Your task to perform on an android device: manage bookmarks in the chrome app Image 0: 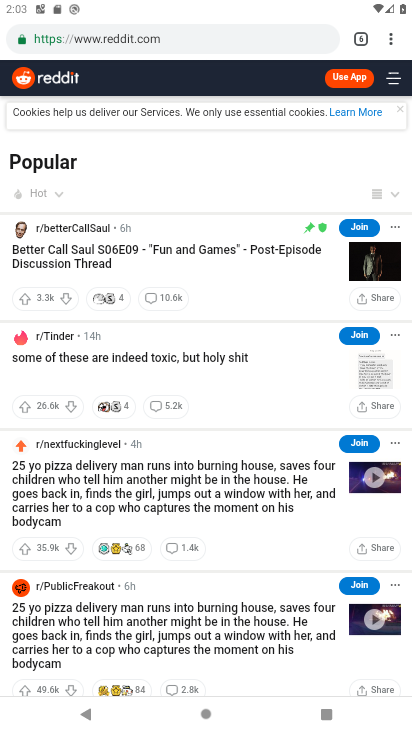
Step 0: press home button
Your task to perform on an android device: manage bookmarks in the chrome app Image 1: 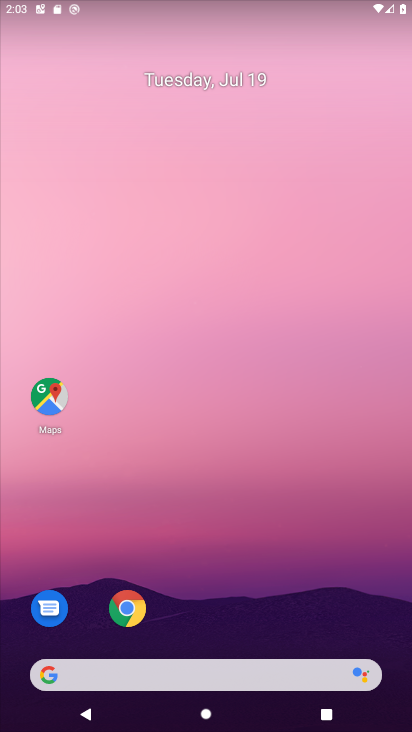
Step 1: click (222, 150)
Your task to perform on an android device: manage bookmarks in the chrome app Image 2: 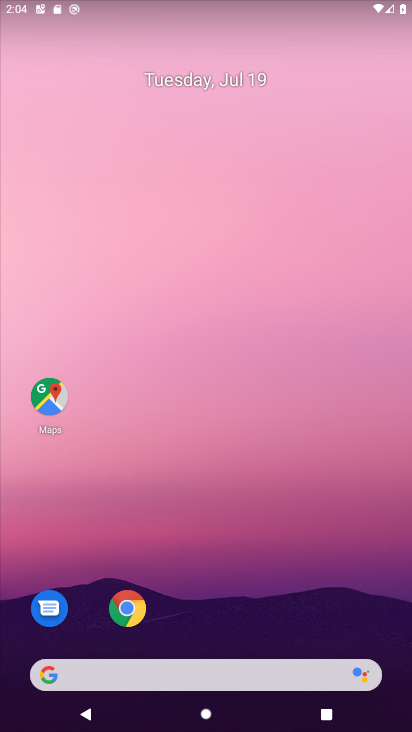
Step 2: drag from (198, 564) to (208, 17)
Your task to perform on an android device: manage bookmarks in the chrome app Image 3: 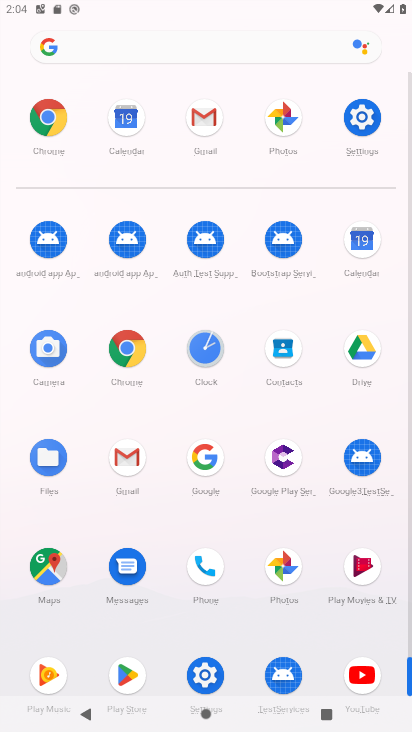
Step 3: click (125, 355)
Your task to perform on an android device: manage bookmarks in the chrome app Image 4: 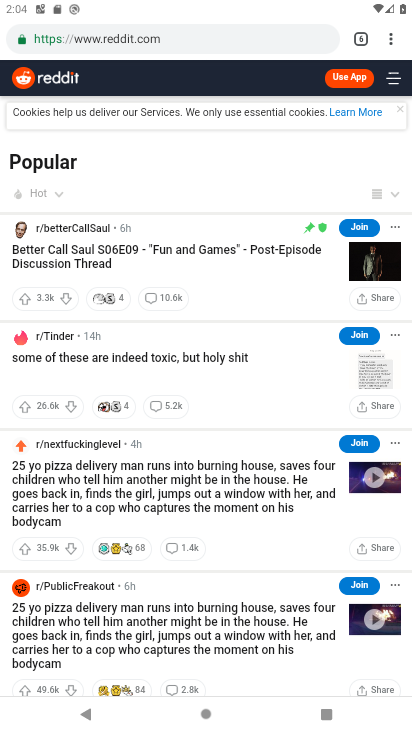
Step 4: click (394, 39)
Your task to perform on an android device: manage bookmarks in the chrome app Image 5: 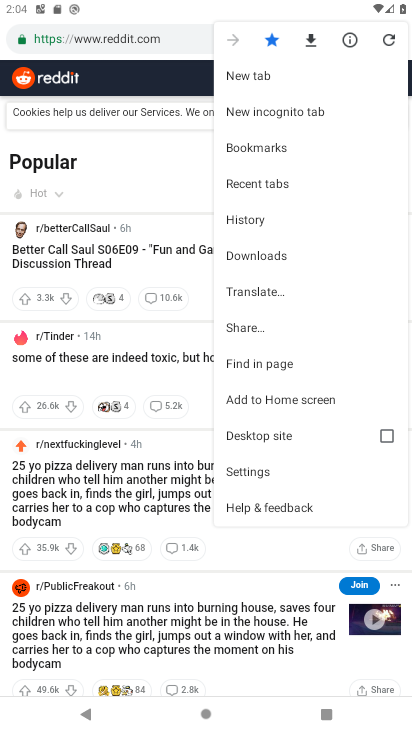
Step 5: click (325, 147)
Your task to perform on an android device: manage bookmarks in the chrome app Image 6: 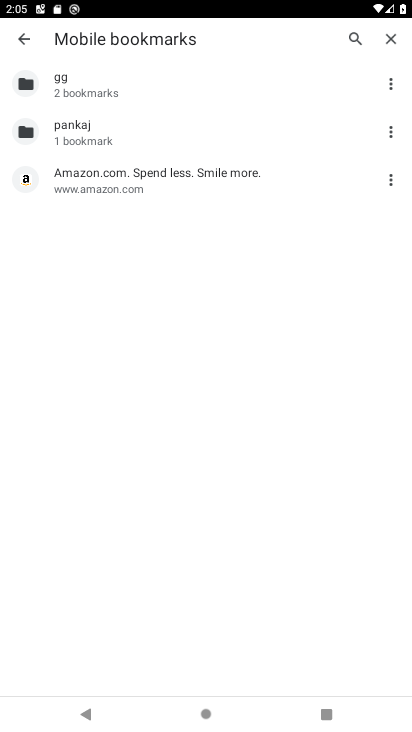
Step 6: click (394, 179)
Your task to perform on an android device: manage bookmarks in the chrome app Image 7: 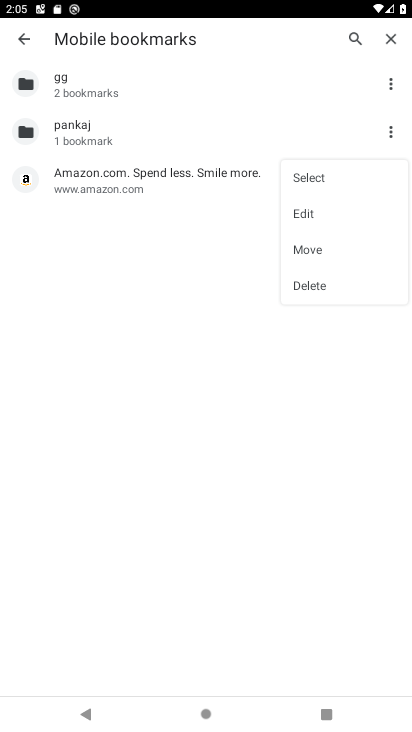
Step 7: click (330, 280)
Your task to perform on an android device: manage bookmarks in the chrome app Image 8: 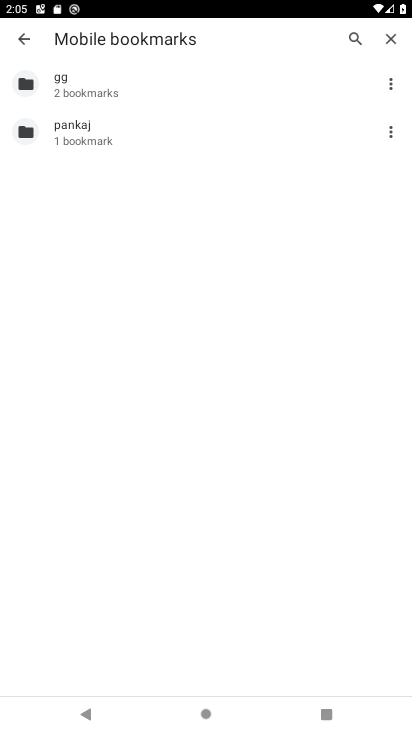
Step 8: task complete